Your task to perform on an android device: Search for sushi restaurants on Maps Image 0: 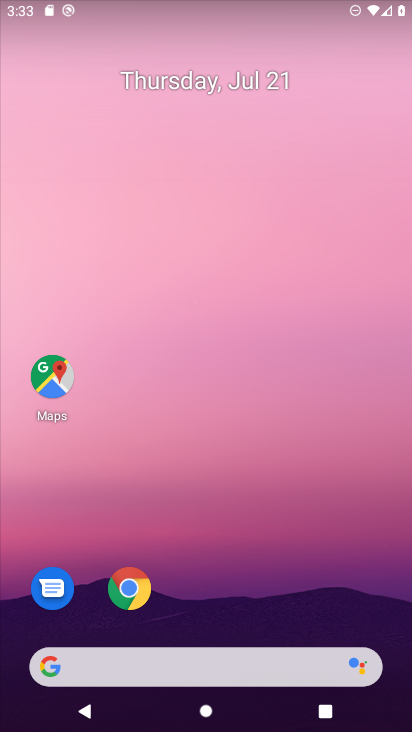
Step 0: click (142, 651)
Your task to perform on an android device: Search for sushi restaurants on Maps Image 1: 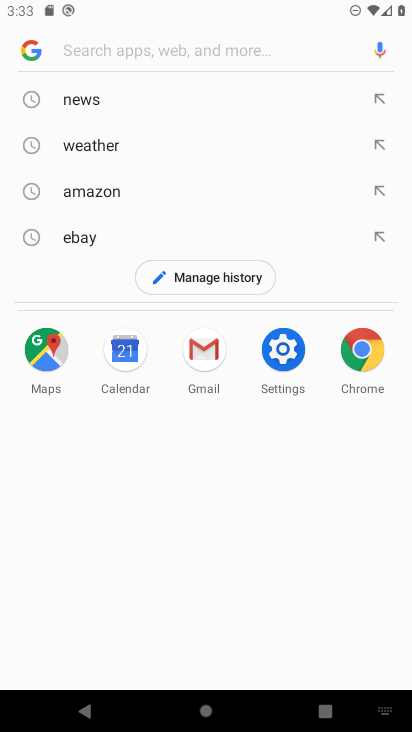
Step 1: press home button
Your task to perform on an android device: Search for sushi restaurants on Maps Image 2: 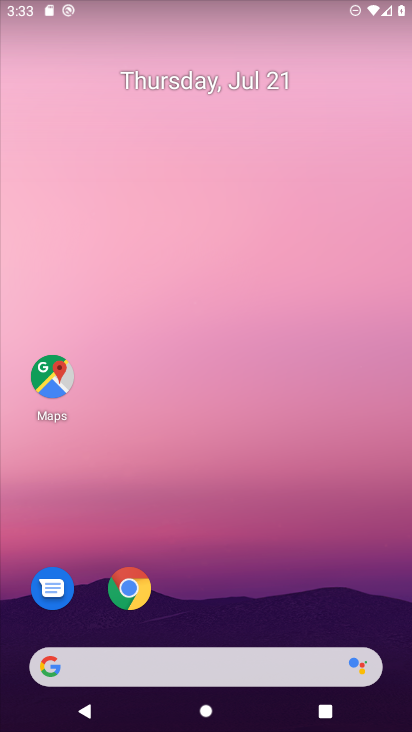
Step 2: drag from (210, 499) to (403, 102)
Your task to perform on an android device: Search for sushi restaurants on Maps Image 3: 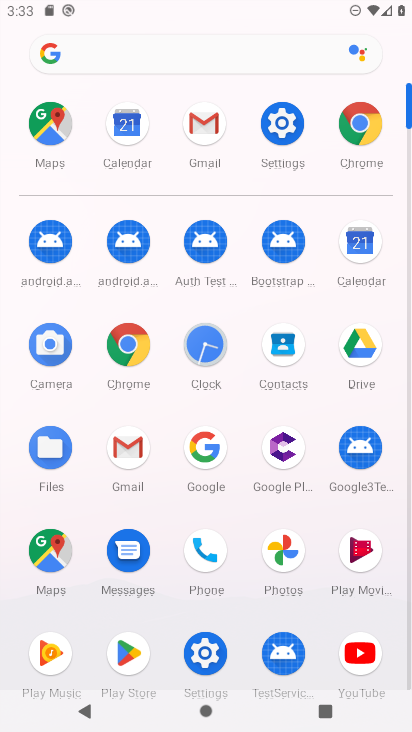
Step 3: click (35, 537)
Your task to perform on an android device: Search for sushi restaurants on Maps Image 4: 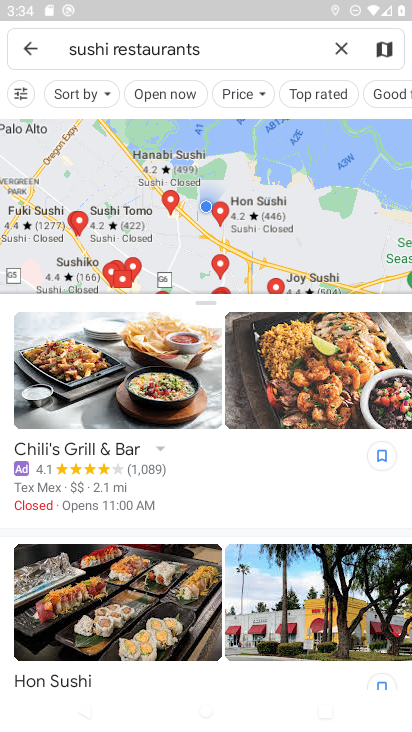
Step 4: task complete